Your task to perform on an android device: clear history in the chrome app Image 0: 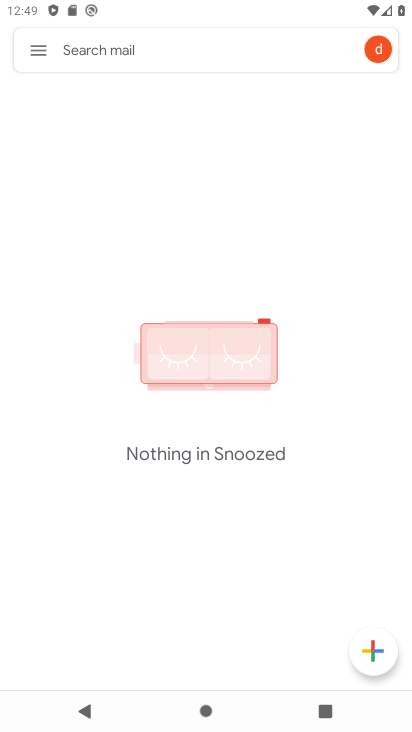
Step 0: press home button
Your task to perform on an android device: clear history in the chrome app Image 1: 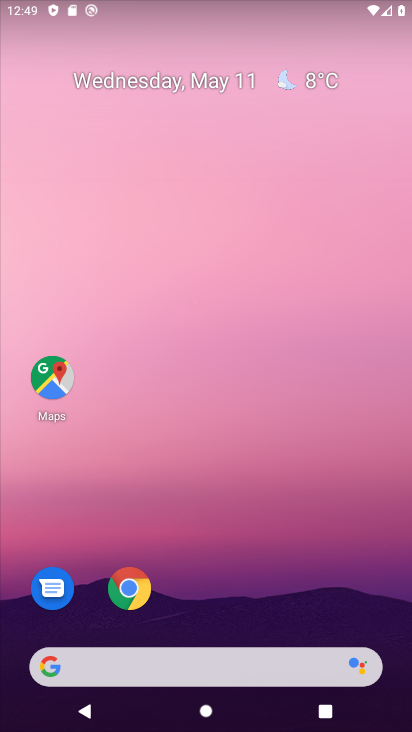
Step 1: click (138, 591)
Your task to perform on an android device: clear history in the chrome app Image 2: 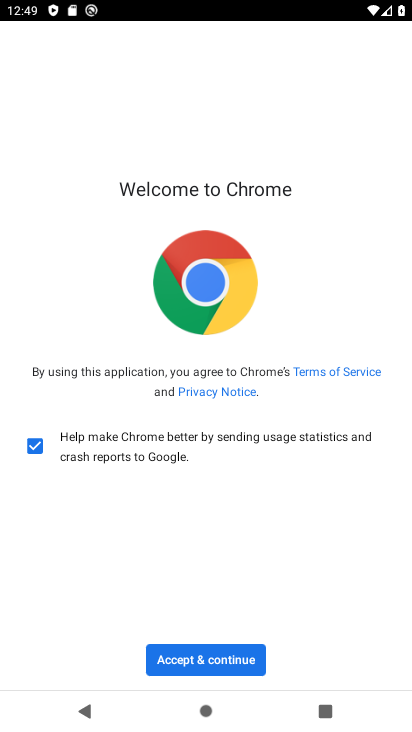
Step 2: click (215, 658)
Your task to perform on an android device: clear history in the chrome app Image 3: 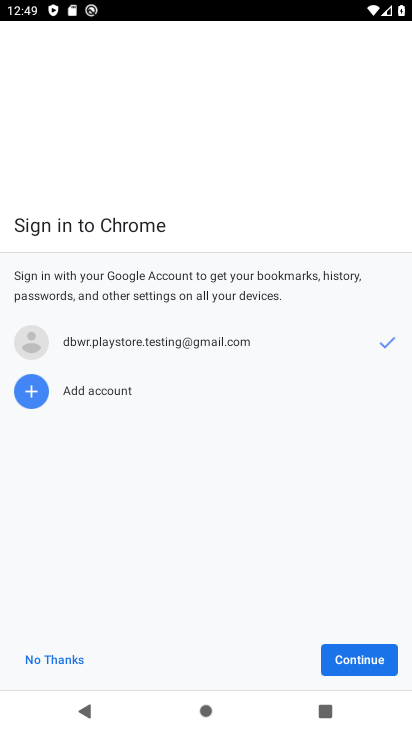
Step 3: click (369, 665)
Your task to perform on an android device: clear history in the chrome app Image 4: 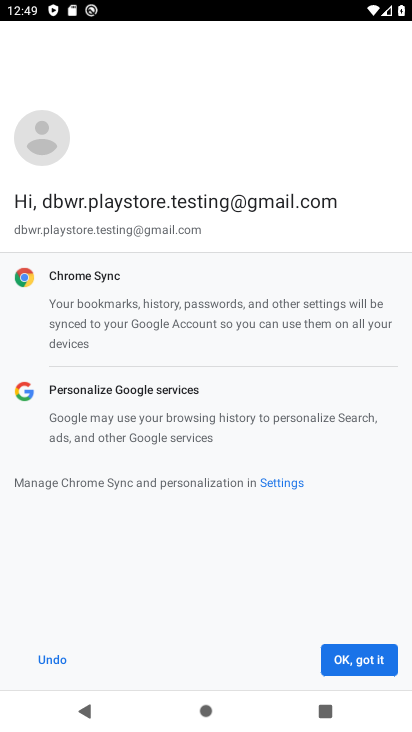
Step 4: click (369, 665)
Your task to perform on an android device: clear history in the chrome app Image 5: 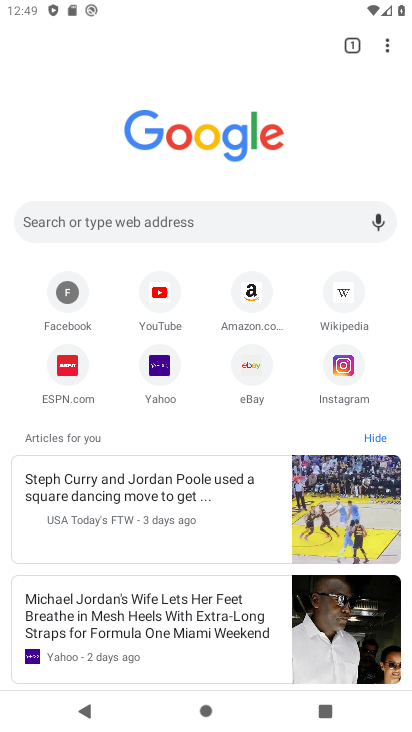
Step 5: task complete